Your task to perform on an android device: Turn on the flashlight Image 0: 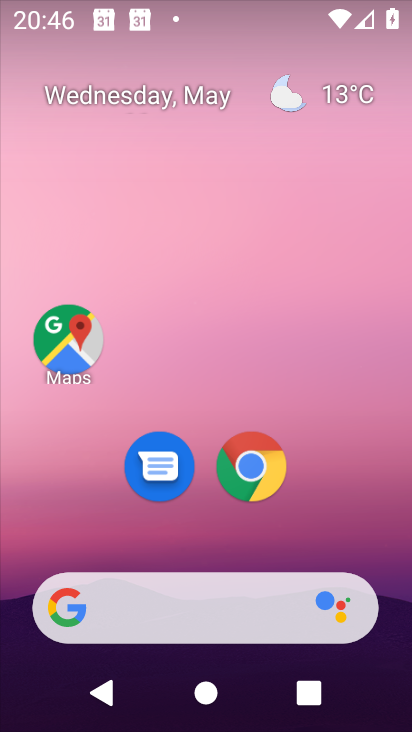
Step 0: drag from (208, 537) to (207, 32)
Your task to perform on an android device: Turn on the flashlight Image 1: 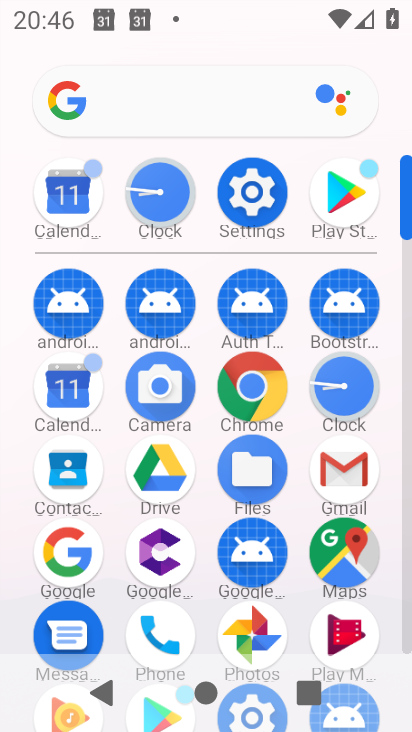
Step 1: click (249, 188)
Your task to perform on an android device: Turn on the flashlight Image 2: 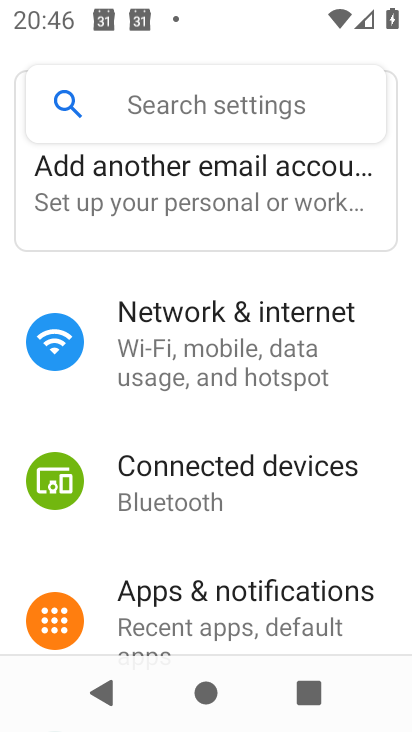
Step 2: click (185, 96)
Your task to perform on an android device: Turn on the flashlight Image 3: 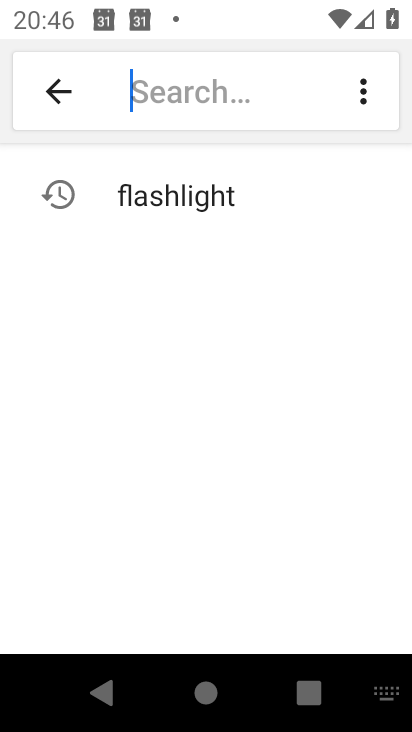
Step 3: type "flashlight"
Your task to perform on an android device: Turn on the flashlight Image 4: 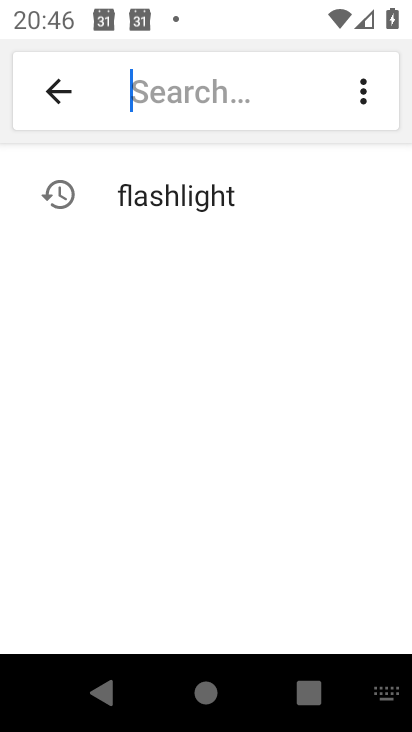
Step 4: click (204, 206)
Your task to perform on an android device: Turn on the flashlight Image 5: 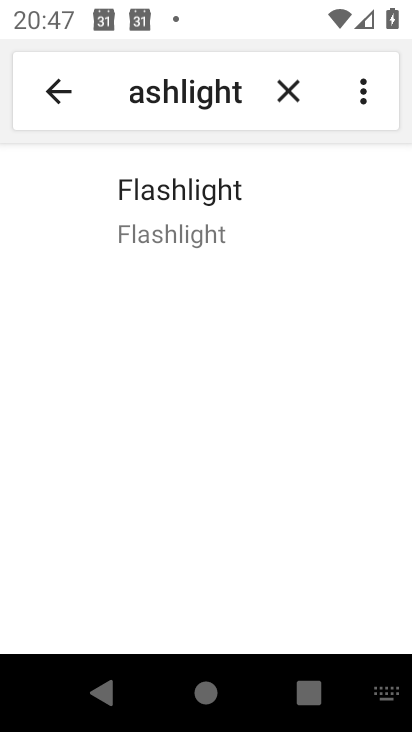
Step 5: task complete